Your task to perform on an android device: snooze an email in the gmail app Image 0: 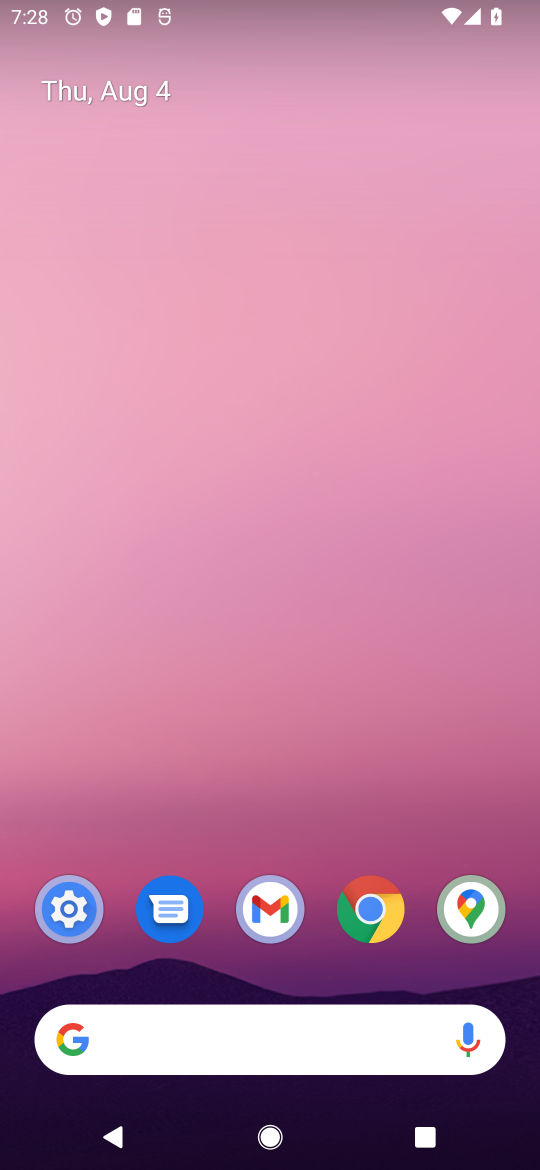
Step 0: drag from (176, 708) to (200, 102)
Your task to perform on an android device: snooze an email in the gmail app Image 1: 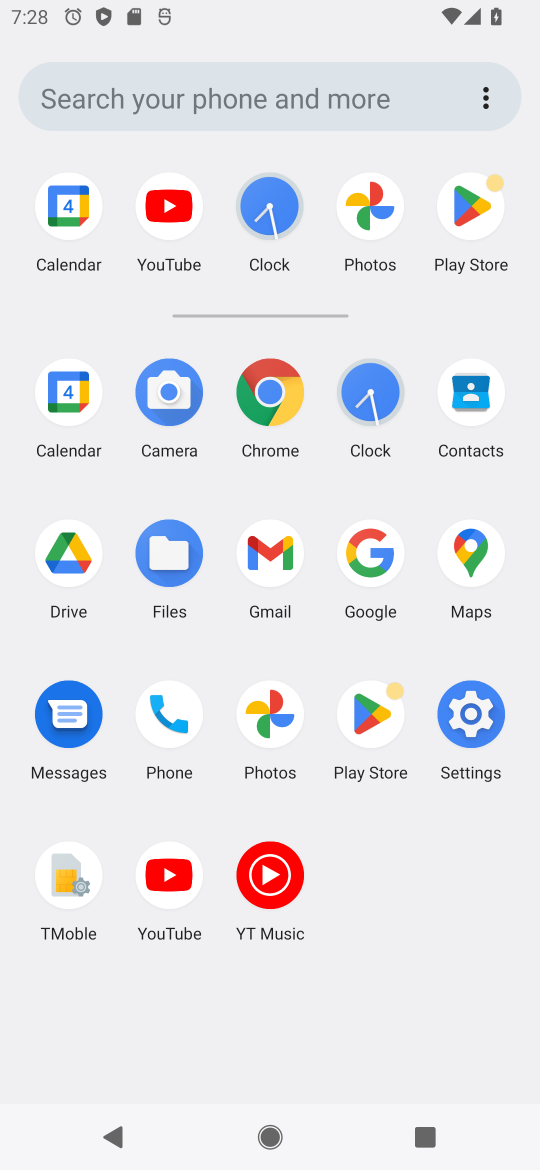
Step 1: press home button
Your task to perform on an android device: snooze an email in the gmail app Image 2: 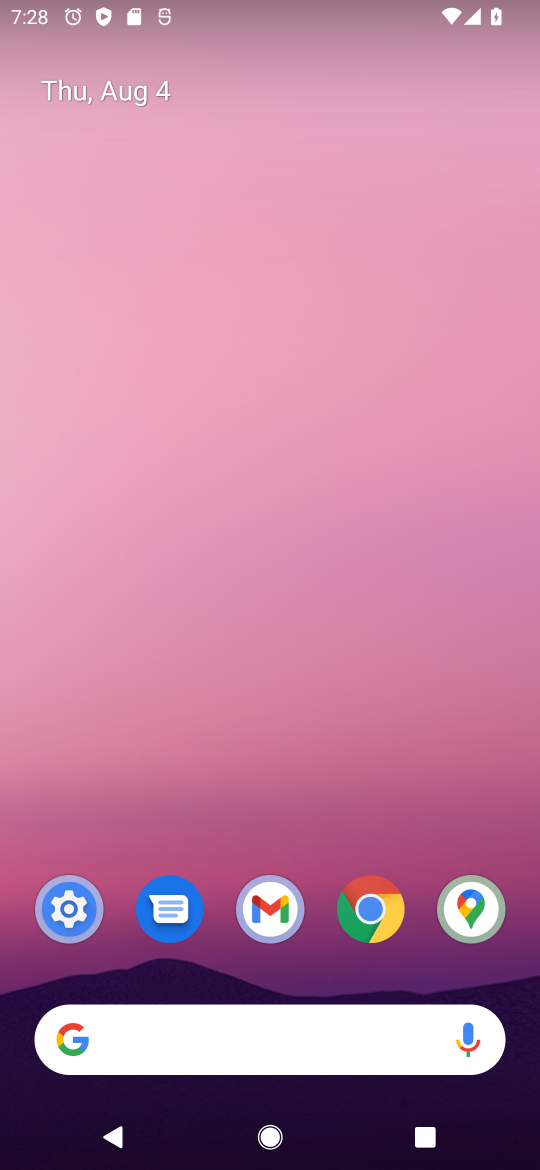
Step 2: drag from (252, 924) to (218, 214)
Your task to perform on an android device: snooze an email in the gmail app Image 3: 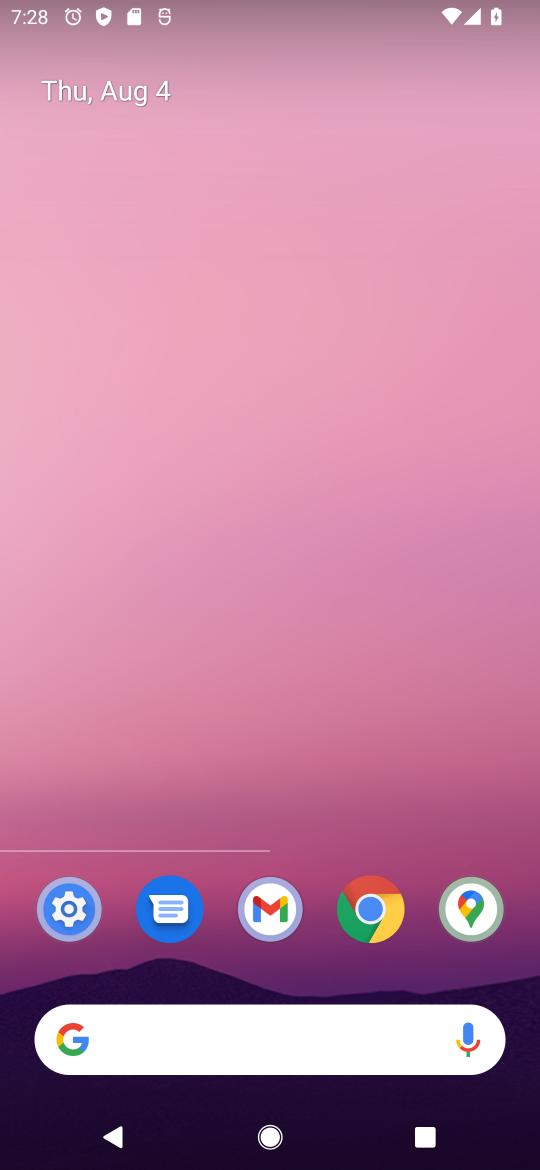
Step 3: drag from (174, 535) to (212, 111)
Your task to perform on an android device: snooze an email in the gmail app Image 4: 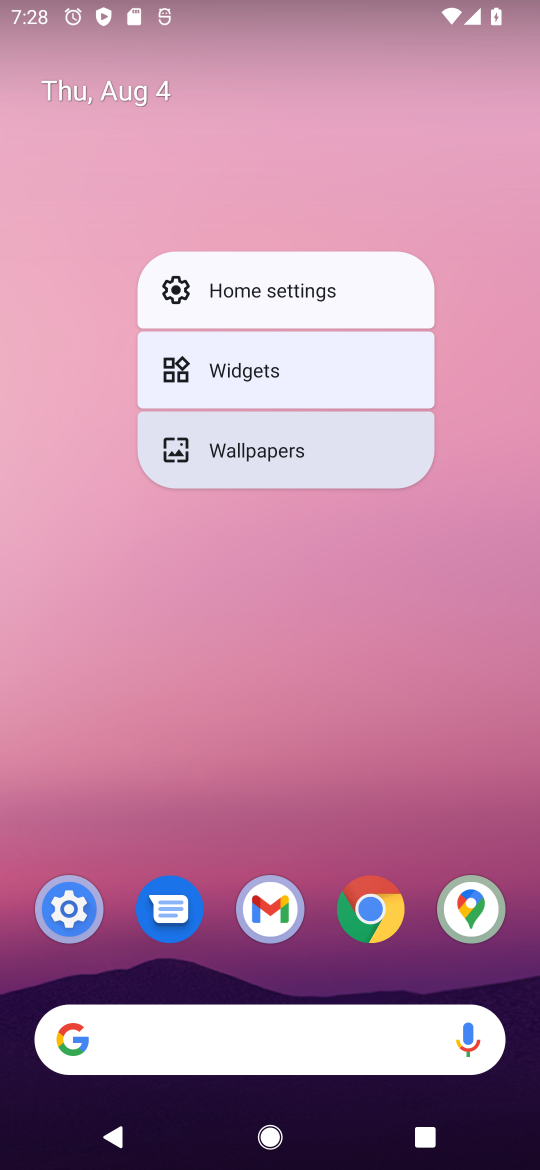
Step 4: click (332, 695)
Your task to perform on an android device: snooze an email in the gmail app Image 5: 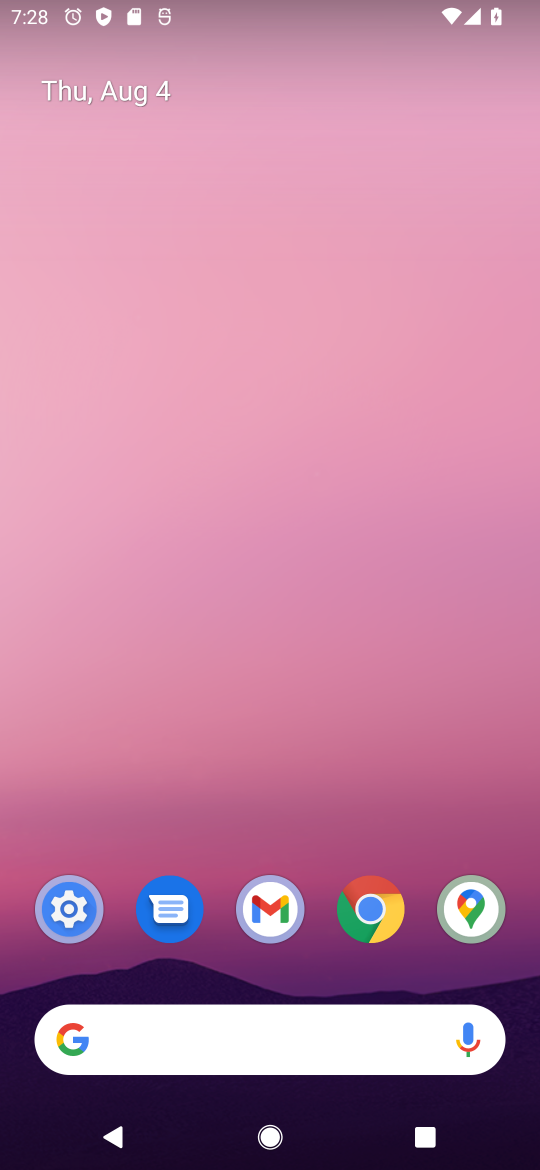
Step 5: drag from (336, 920) to (308, 91)
Your task to perform on an android device: snooze an email in the gmail app Image 6: 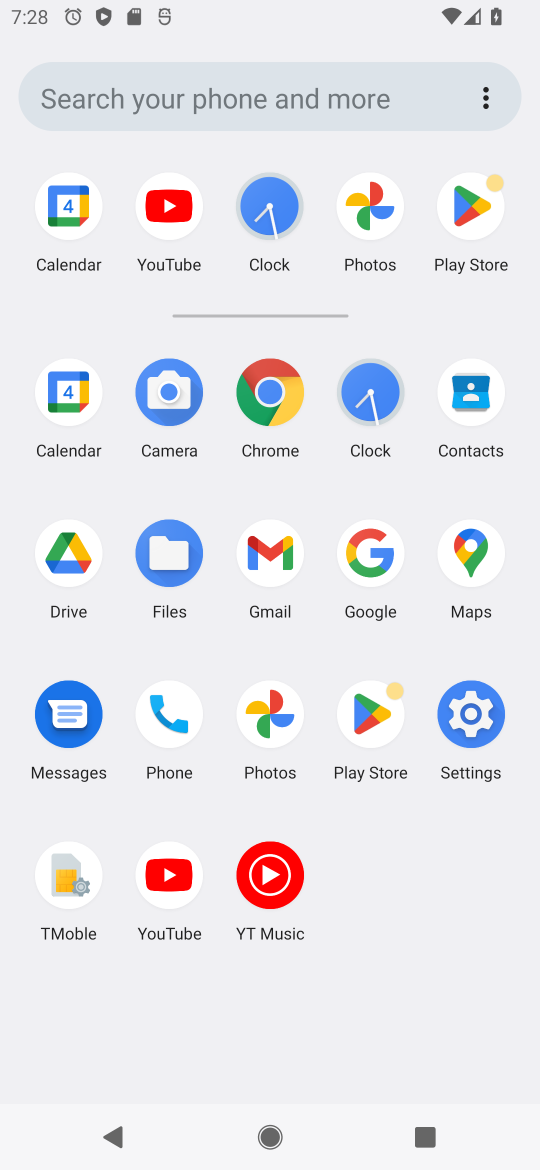
Step 6: click (267, 558)
Your task to perform on an android device: snooze an email in the gmail app Image 7: 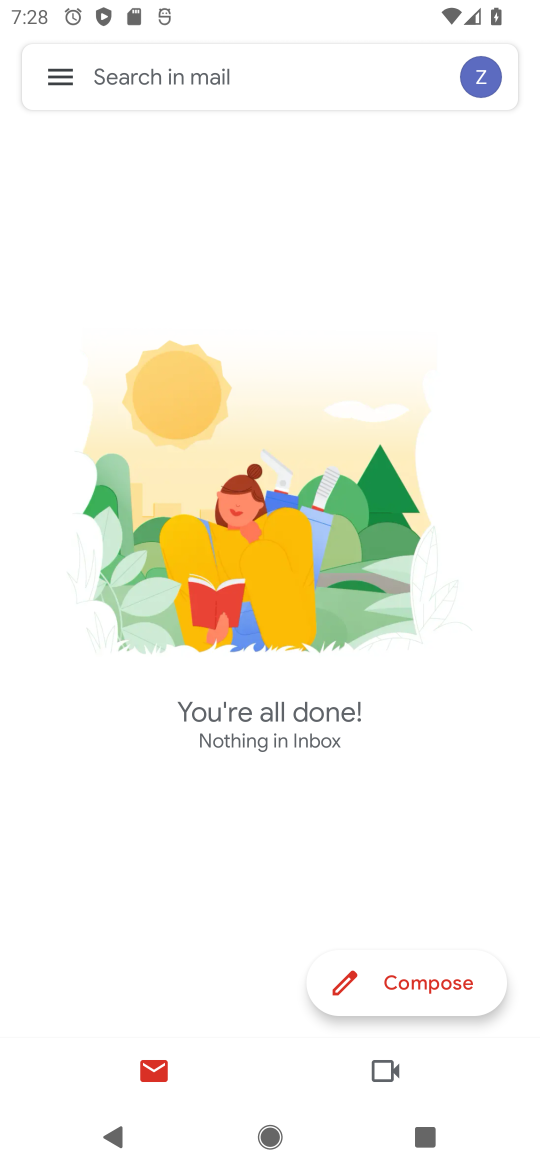
Step 7: task complete